Your task to perform on an android device: find snoozed emails in the gmail app Image 0: 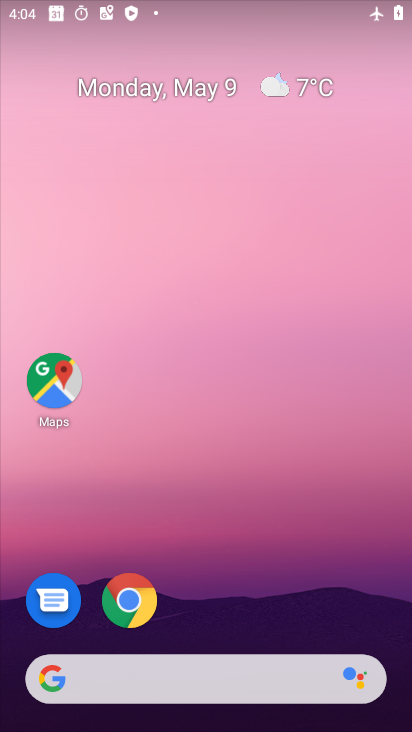
Step 0: drag from (314, 611) to (224, 133)
Your task to perform on an android device: find snoozed emails in the gmail app Image 1: 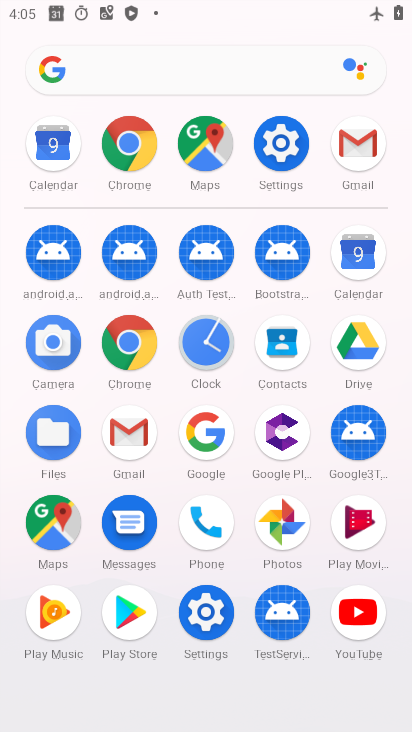
Step 1: click (137, 422)
Your task to perform on an android device: find snoozed emails in the gmail app Image 2: 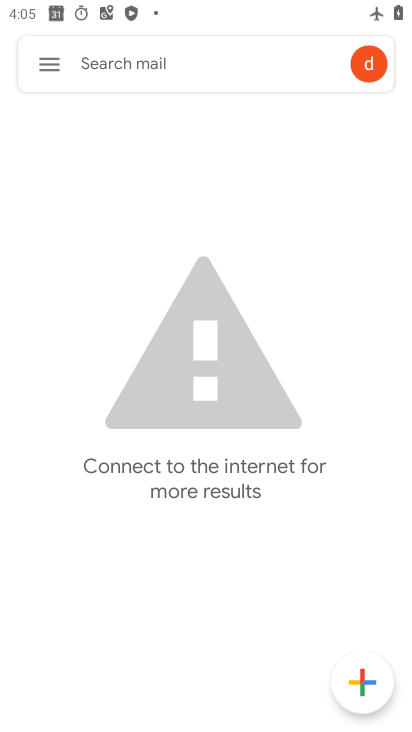
Step 2: click (58, 65)
Your task to perform on an android device: find snoozed emails in the gmail app Image 3: 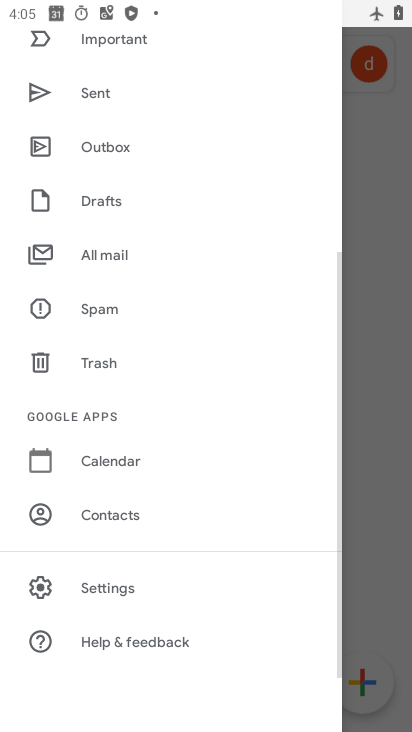
Step 3: drag from (148, 201) to (229, 581)
Your task to perform on an android device: find snoozed emails in the gmail app Image 4: 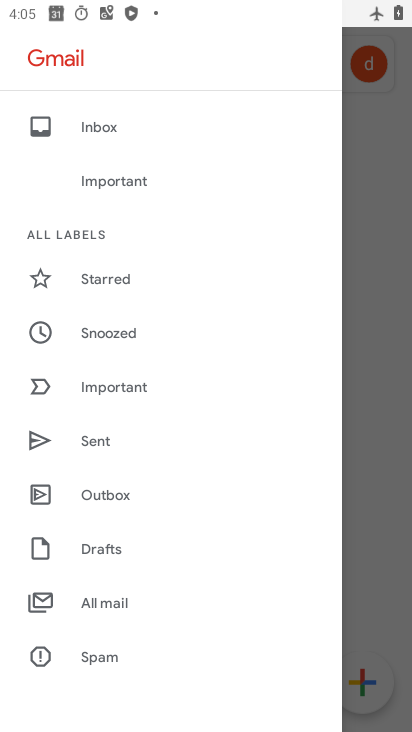
Step 4: click (130, 329)
Your task to perform on an android device: find snoozed emails in the gmail app Image 5: 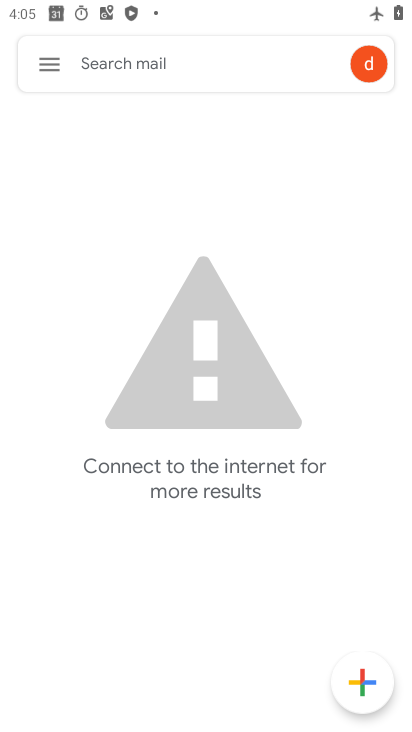
Step 5: task complete